Your task to perform on an android device: turn notification dots off Image 0: 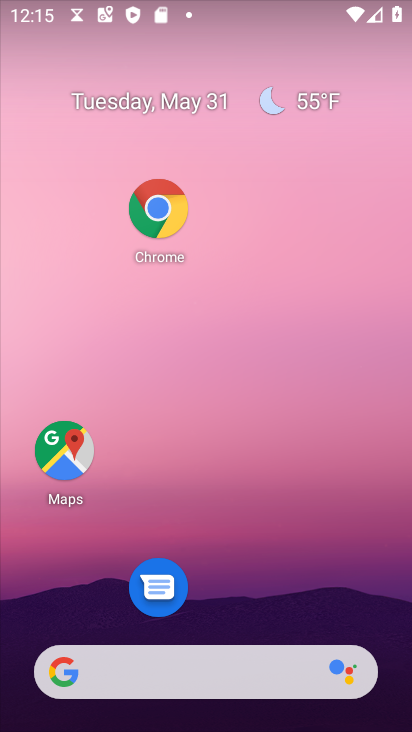
Step 0: drag from (304, 584) to (289, 176)
Your task to perform on an android device: turn notification dots off Image 1: 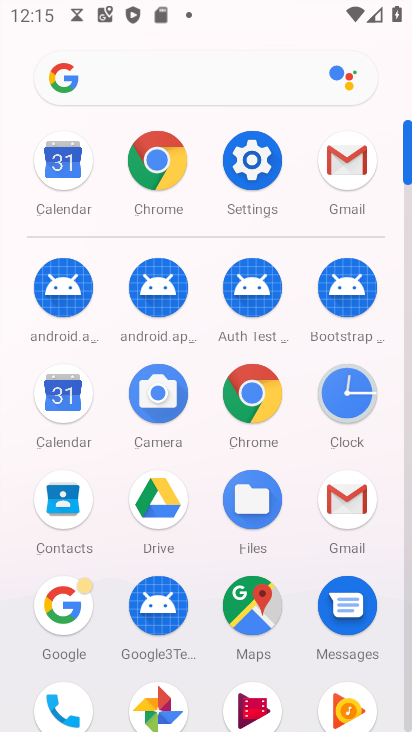
Step 1: click (255, 157)
Your task to perform on an android device: turn notification dots off Image 2: 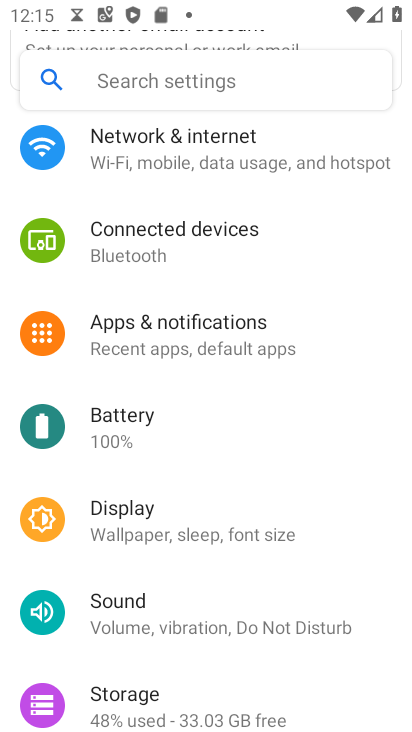
Step 2: click (206, 322)
Your task to perform on an android device: turn notification dots off Image 3: 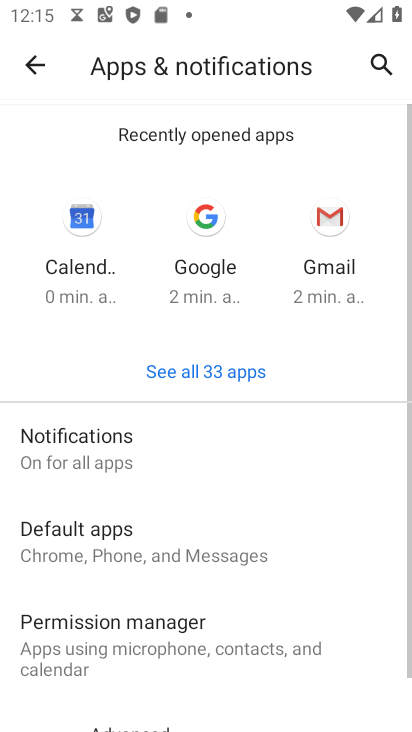
Step 3: click (96, 448)
Your task to perform on an android device: turn notification dots off Image 4: 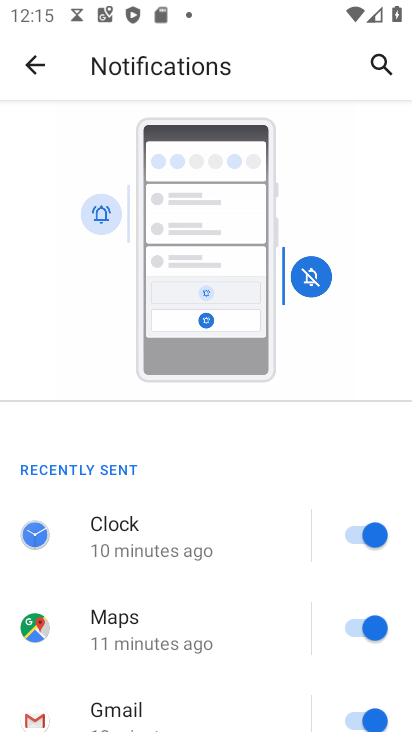
Step 4: drag from (152, 644) to (128, 152)
Your task to perform on an android device: turn notification dots off Image 5: 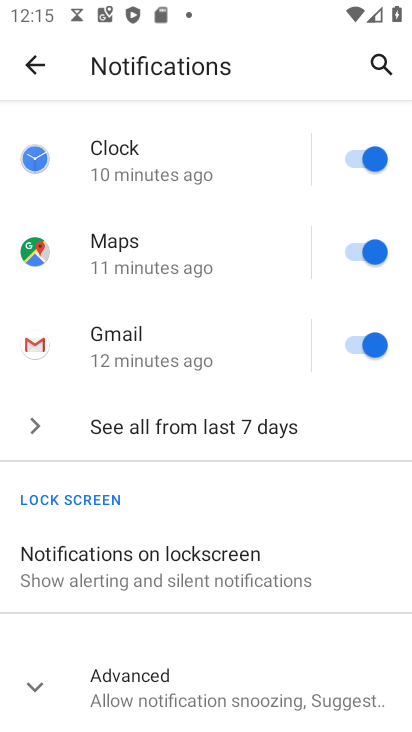
Step 5: click (121, 671)
Your task to perform on an android device: turn notification dots off Image 6: 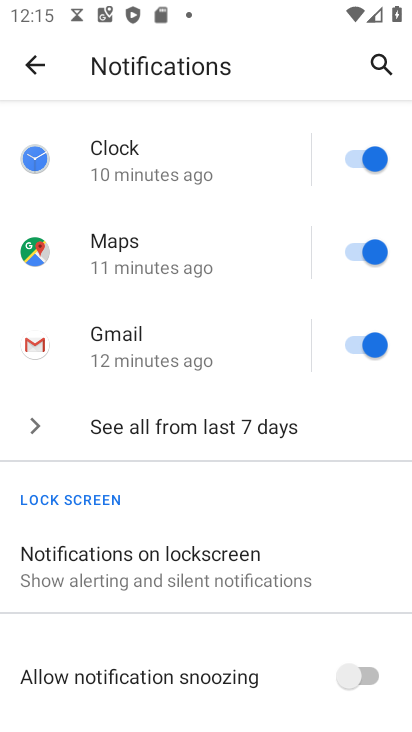
Step 6: drag from (121, 699) to (131, 389)
Your task to perform on an android device: turn notification dots off Image 7: 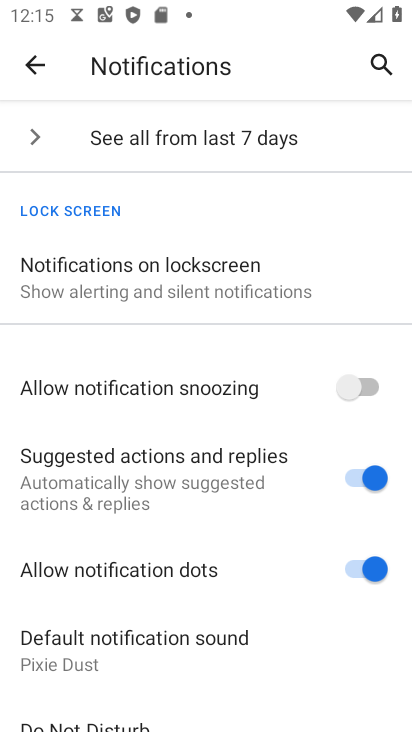
Step 7: click (365, 570)
Your task to perform on an android device: turn notification dots off Image 8: 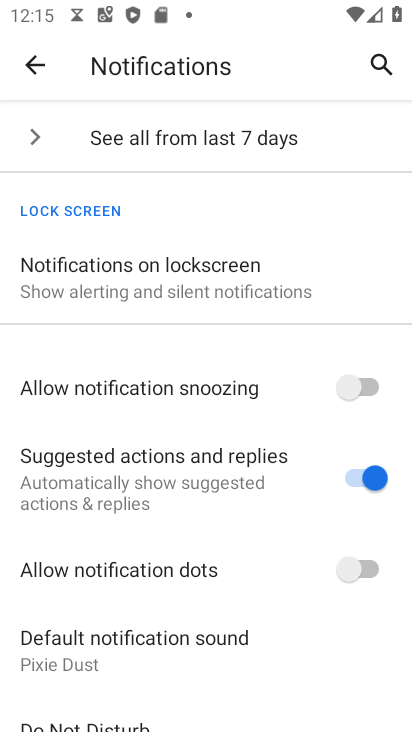
Step 8: task complete